Your task to perform on an android device: toggle data saver in the chrome app Image 0: 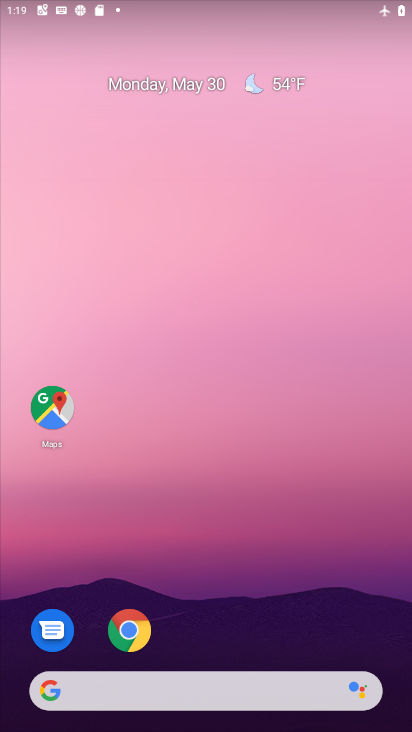
Step 0: click (127, 629)
Your task to perform on an android device: toggle data saver in the chrome app Image 1: 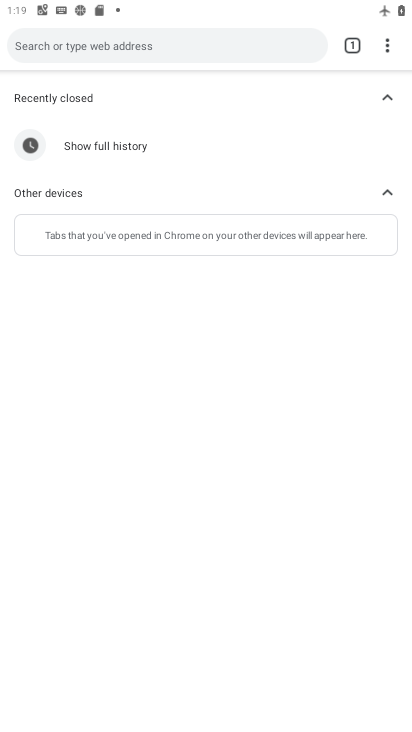
Step 1: drag from (383, 52) to (265, 381)
Your task to perform on an android device: toggle data saver in the chrome app Image 2: 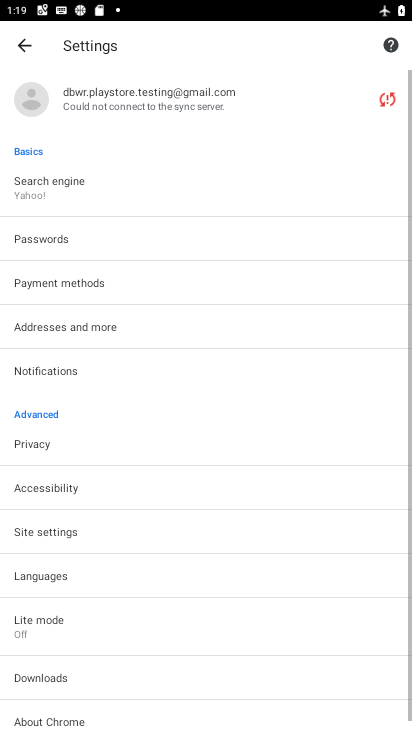
Step 2: drag from (146, 690) to (208, 382)
Your task to perform on an android device: toggle data saver in the chrome app Image 3: 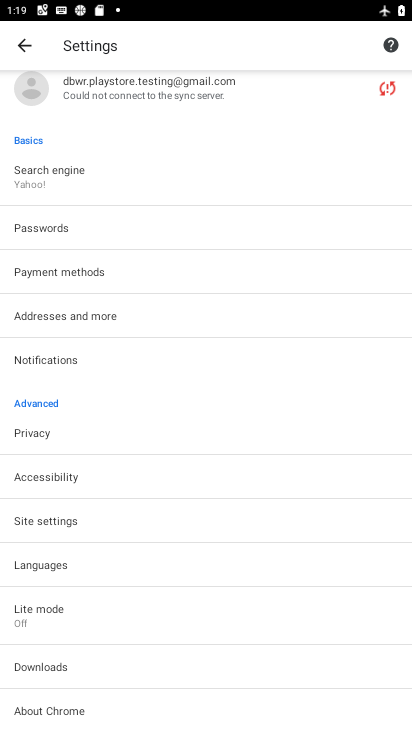
Step 3: click (49, 613)
Your task to perform on an android device: toggle data saver in the chrome app Image 4: 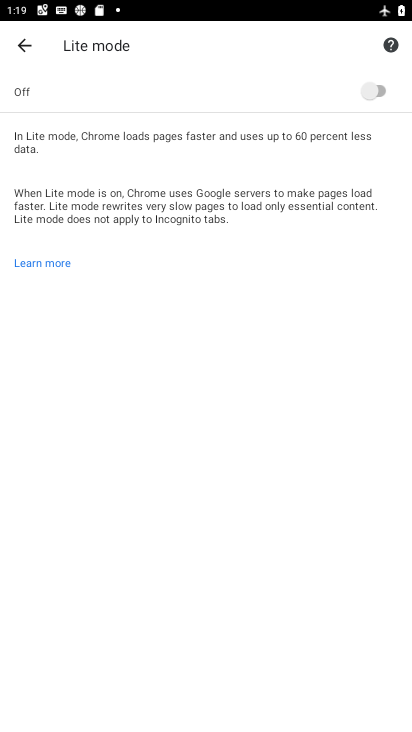
Step 4: click (384, 83)
Your task to perform on an android device: toggle data saver in the chrome app Image 5: 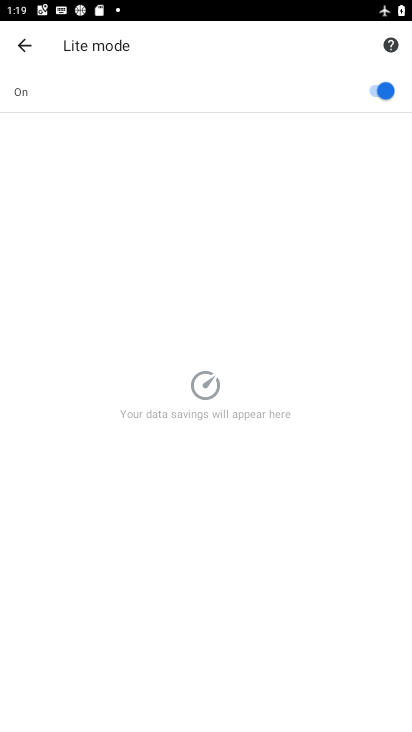
Step 5: task complete